Your task to perform on an android device: Open sound settings Image 0: 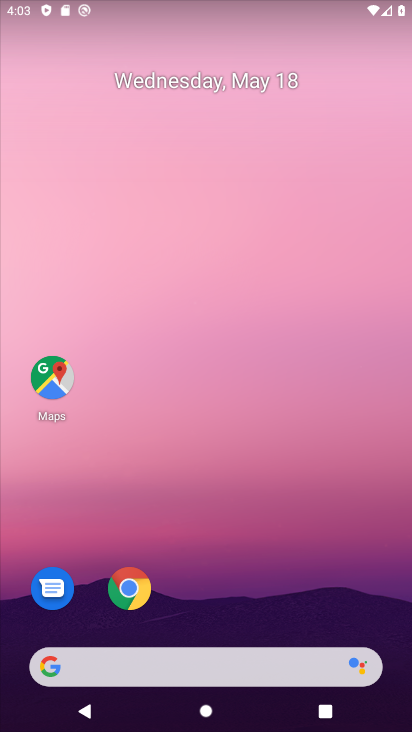
Step 0: drag from (227, 617) to (256, 161)
Your task to perform on an android device: Open sound settings Image 1: 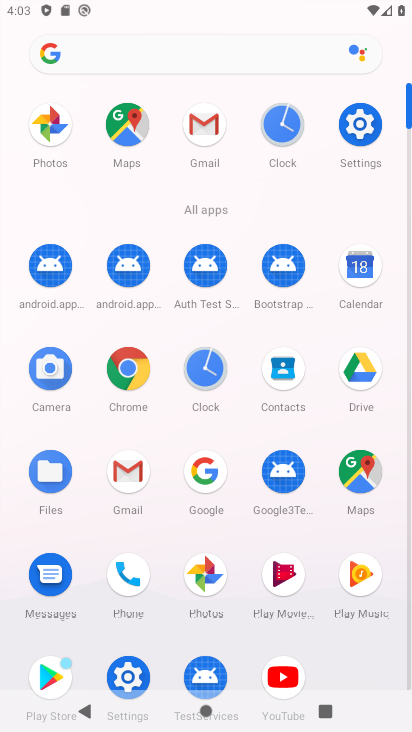
Step 1: click (367, 115)
Your task to perform on an android device: Open sound settings Image 2: 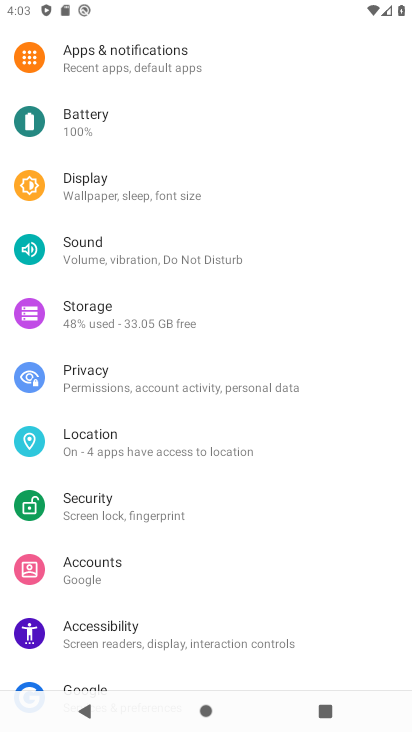
Step 2: click (125, 253)
Your task to perform on an android device: Open sound settings Image 3: 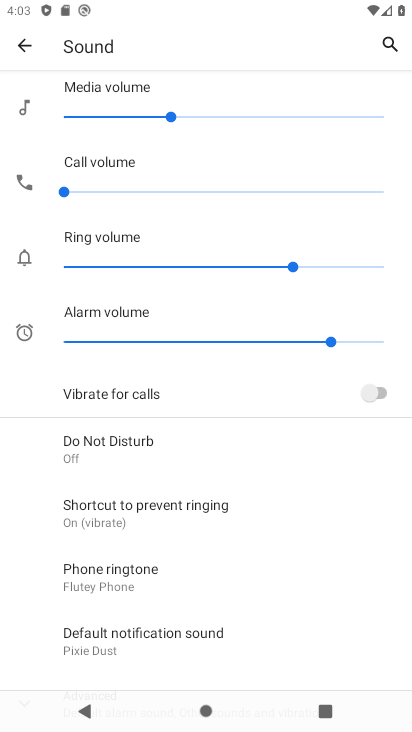
Step 3: task complete